Your task to perform on an android device: turn vacation reply on in the gmail app Image 0: 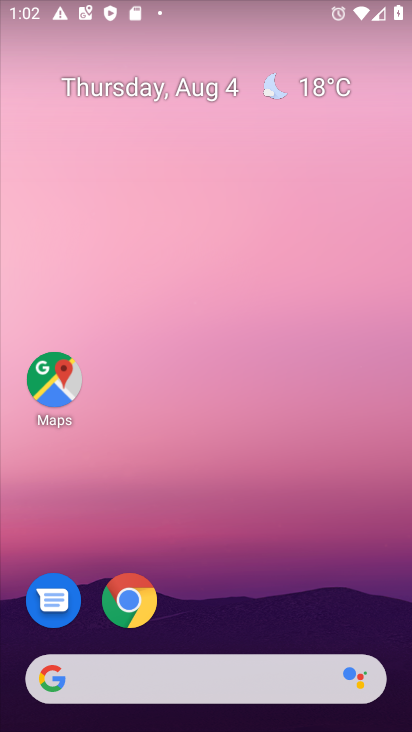
Step 0: press home button
Your task to perform on an android device: turn vacation reply on in the gmail app Image 1: 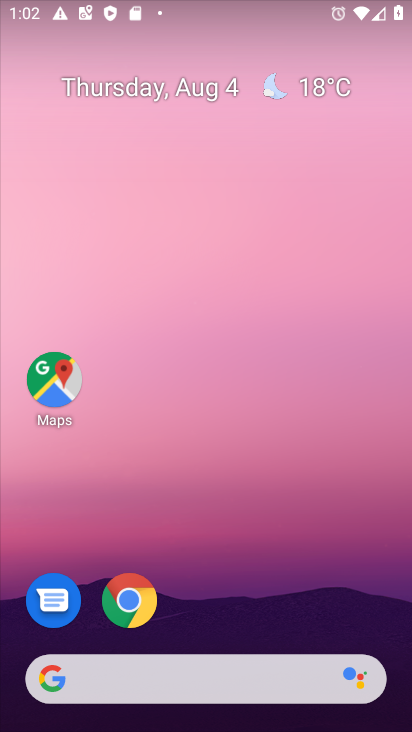
Step 1: drag from (152, 658) to (282, 192)
Your task to perform on an android device: turn vacation reply on in the gmail app Image 2: 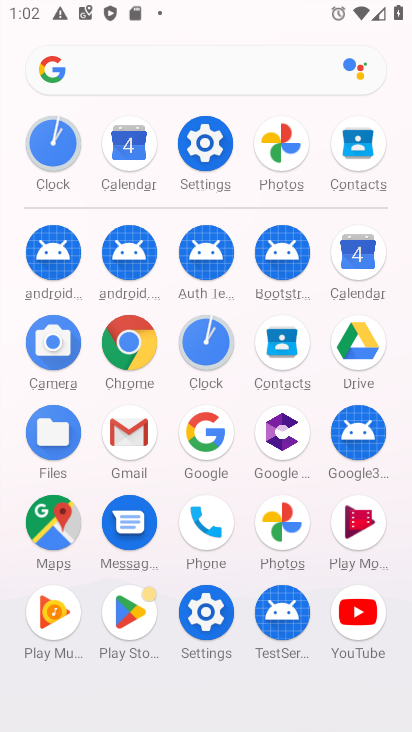
Step 2: click (124, 440)
Your task to perform on an android device: turn vacation reply on in the gmail app Image 3: 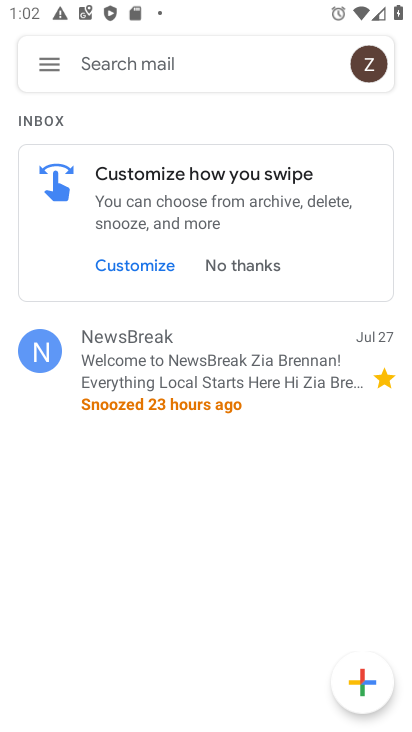
Step 3: click (51, 67)
Your task to perform on an android device: turn vacation reply on in the gmail app Image 4: 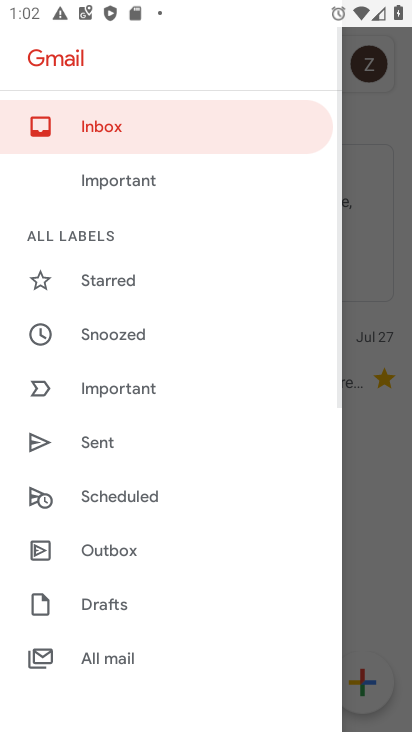
Step 4: drag from (179, 628) to (270, 122)
Your task to perform on an android device: turn vacation reply on in the gmail app Image 5: 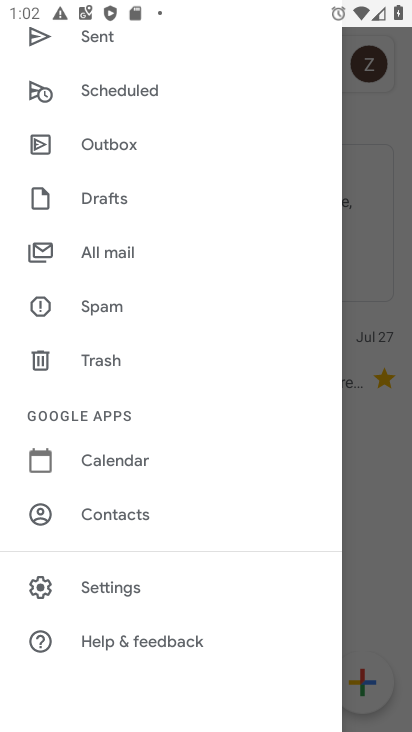
Step 5: click (137, 587)
Your task to perform on an android device: turn vacation reply on in the gmail app Image 6: 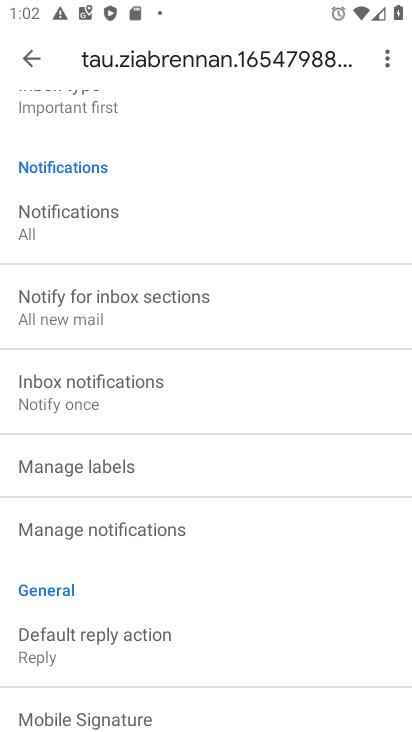
Step 6: drag from (196, 670) to (367, 39)
Your task to perform on an android device: turn vacation reply on in the gmail app Image 7: 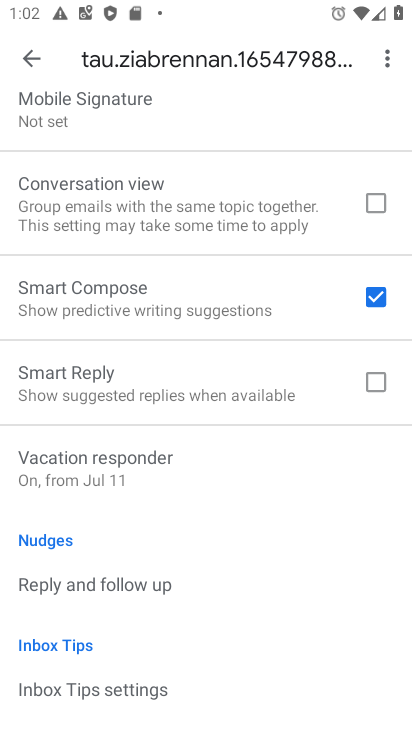
Step 7: click (117, 470)
Your task to perform on an android device: turn vacation reply on in the gmail app Image 8: 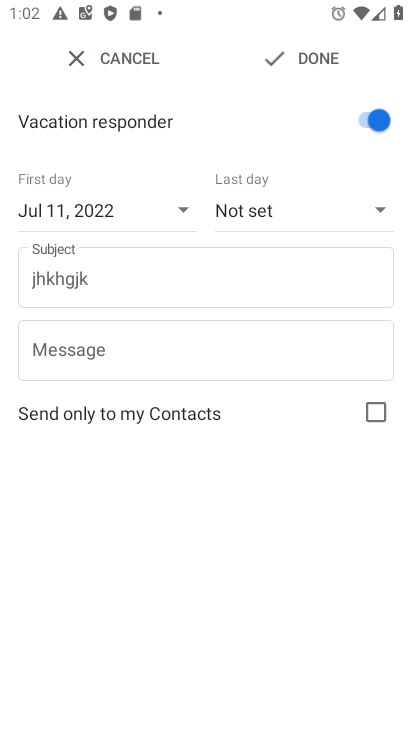
Step 8: task complete